Your task to perform on an android device: Play the last video I watched on Youtube Image 0: 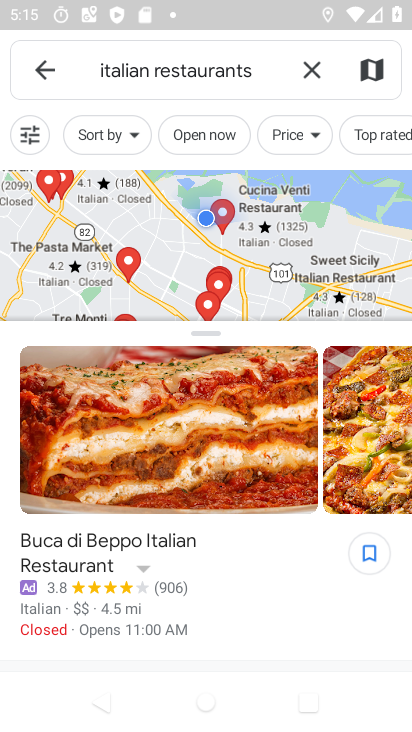
Step 0: press home button
Your task to perform on an android device: Play the last video I watched on Youtube Image 1: 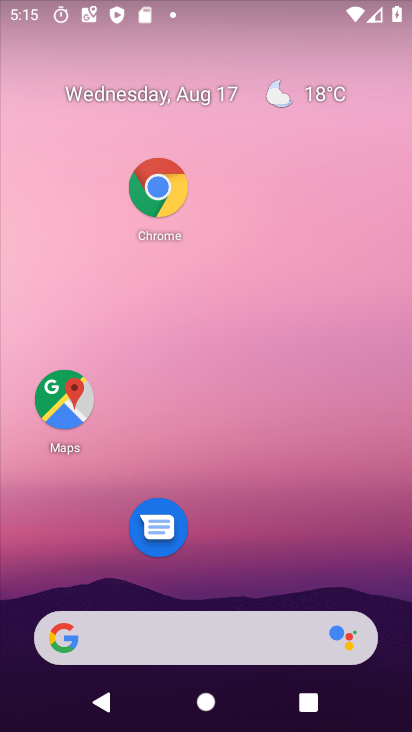
Step 1: drag from (260, 589) to (216, 9)
Your task to perform on an android device: Play the last video I watched on Youtube Image 2: 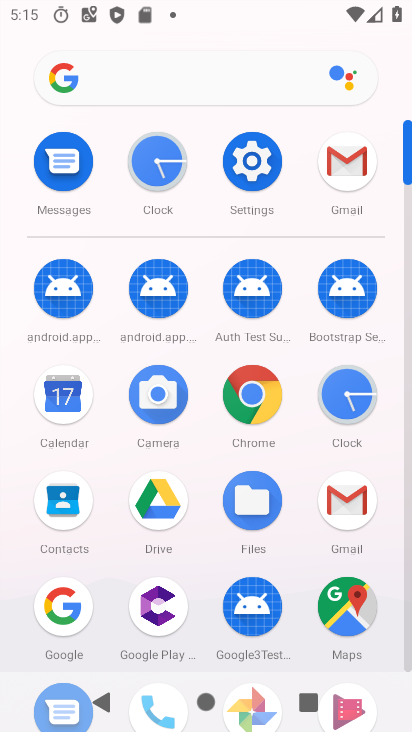
Step 2: drag from (304, 631) to (379, 130)
Your task to perform on an android device: Play the last video I watched on Youtube Image 3: 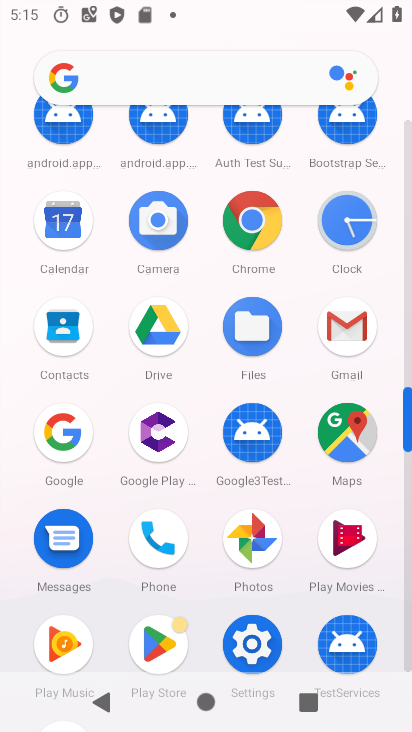
Step 3: drag from (118, 631) to (87, 188)
Your task to perform on an android device: Play the last video I watched on Youtube Image 4: 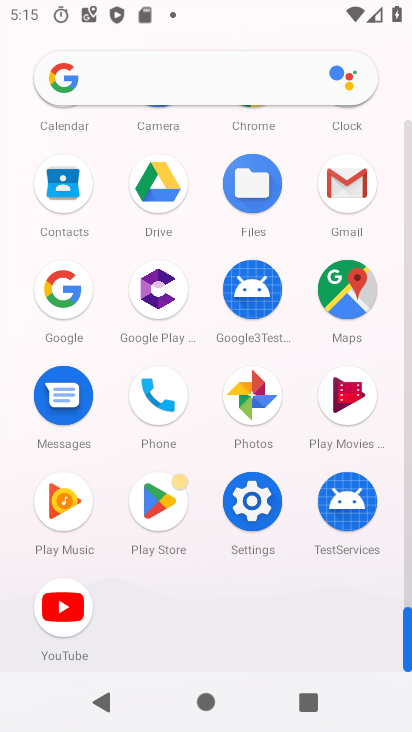
Step 4: click (80, 620)
Your task to perform on an android device: Play the last video I watched on Youtube Image 5: 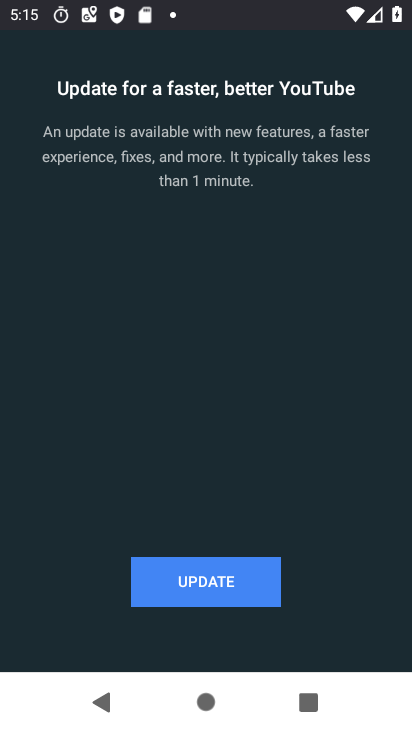
Step 5: click (236, 555)
Your task to perform on an android device: Play the last video I watched on Youtube Image 6: 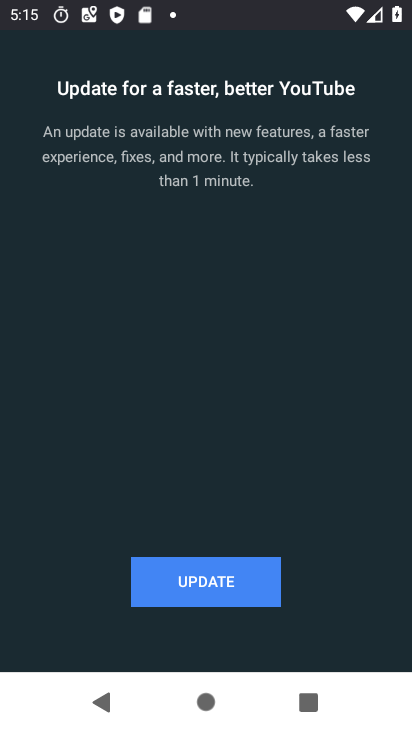
Step 6: click (205, 590)
Your task to perform on an android device: Play the last video I watched on Youtube Image 7: 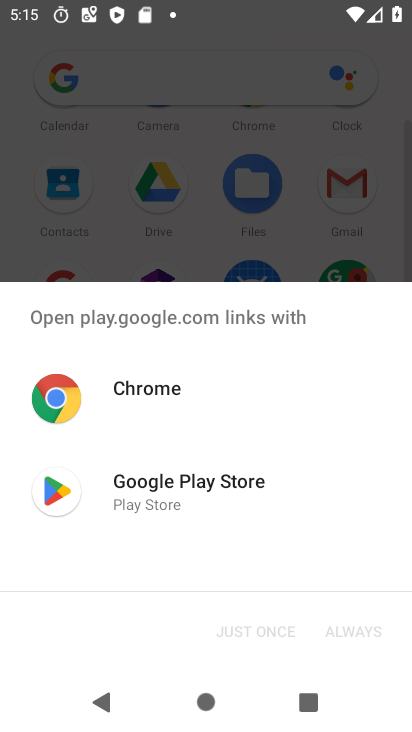
Step 7: click (177, 471)
Your task to perform on an android device: Play the last video I watched on Youtube Image 8: 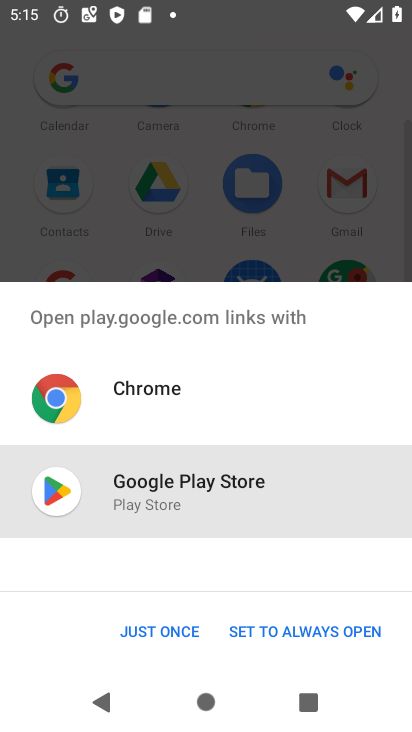
Step 8: click (178, 631)
Your task to perform on an android device: Play the last video I watched on Youtube Image 9: 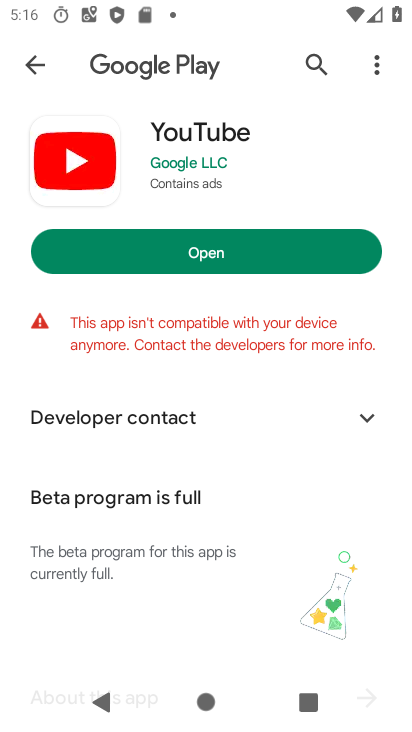
Step 9: task complete